Your task to perform on an android device: Open Reddit.com Image 0: 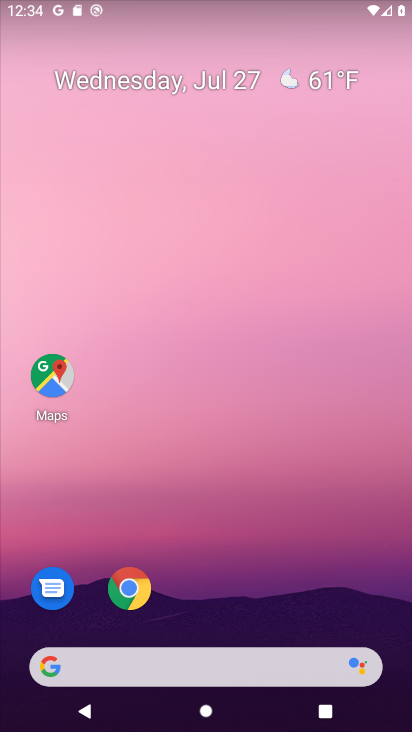
Step 0: click (132, 589)
Your task to perform on an android device: Open Reddit.com Image 1: 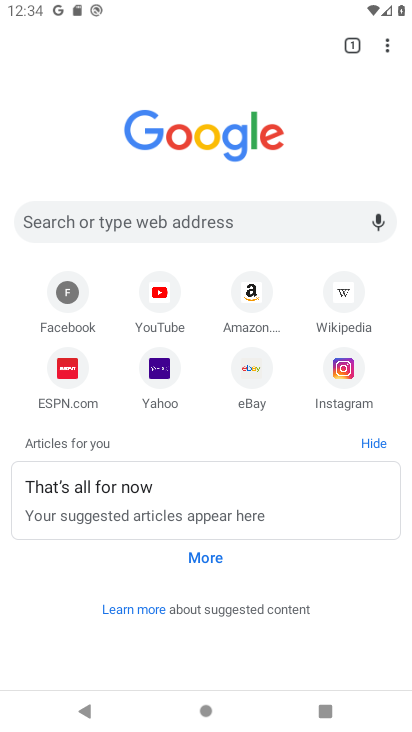
Step 1: click (151, 214)
Your task to perform on an android device: Open Reddit.com Image 2: 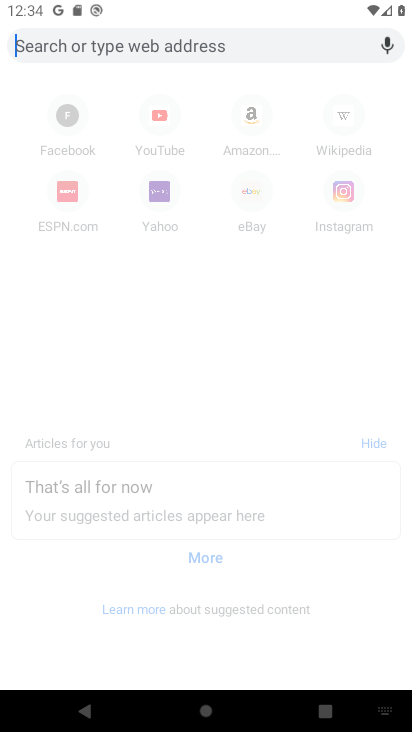
Step 2: type "Reddit.com"
Your task to perform on an android device: Open Reddit.com Image 3: 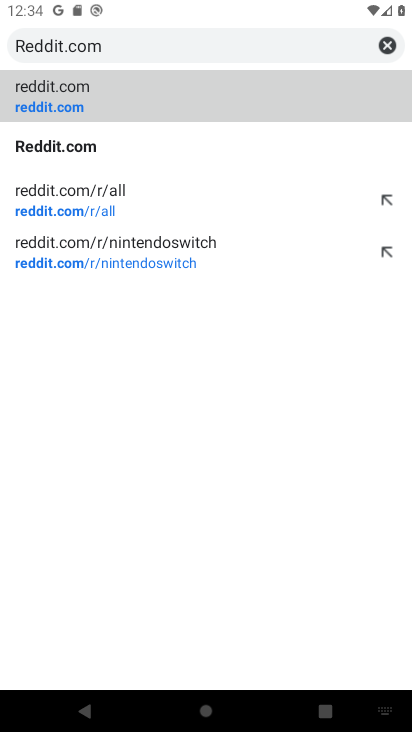
Step 3: click (34, 155)
Your task to perform on an android device: Open Reddit.com Image 4: 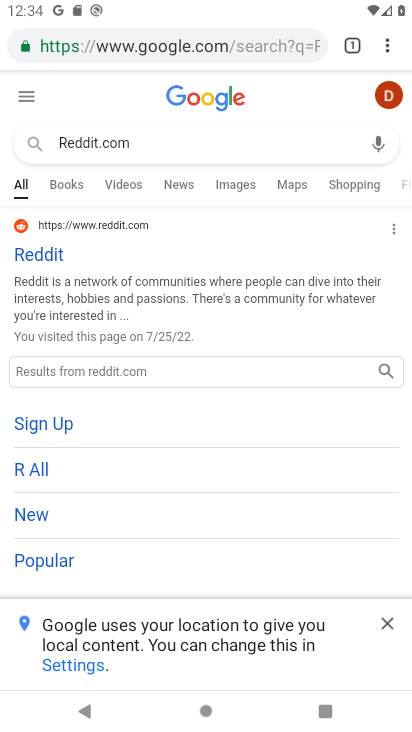
Step 4: click (44, 255)
Your task to perform on an android device: Open Reddit.com Image 5: 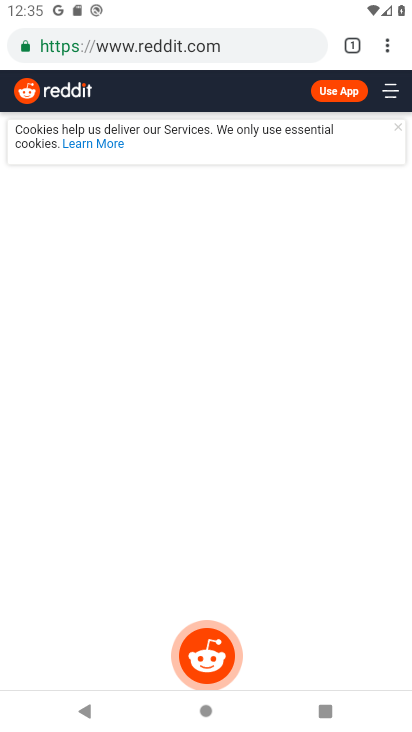
Step 5: task complete